Your task to perform on an android device: Open the calendar and show me this week's events? Image 0: 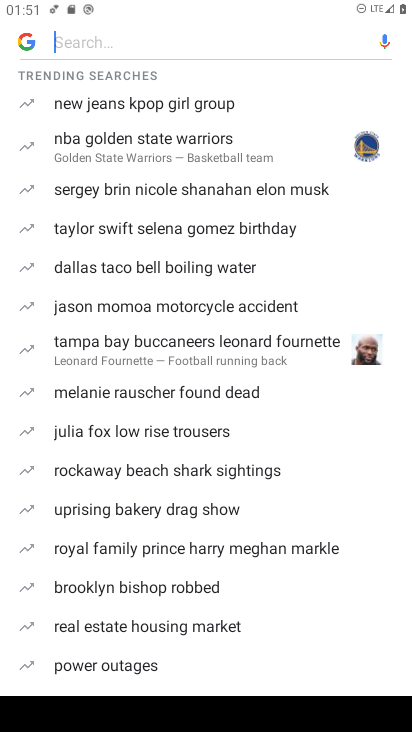
Step 0: press home button
Your task to perform on an android device: Open the calendar and show me this week's events? Image 1: 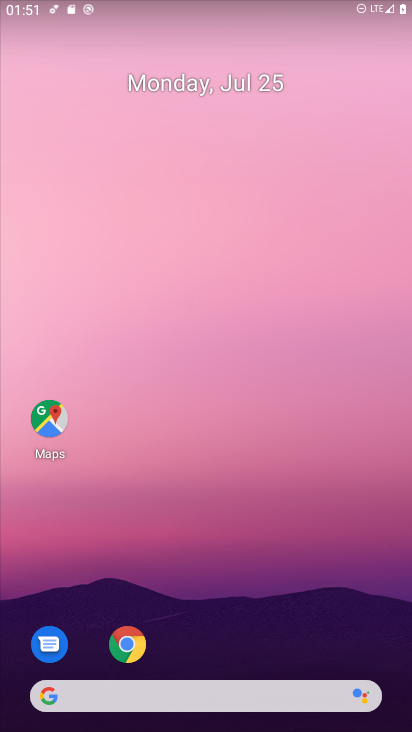
Step 1: drag from (193, 633) to (187, 269)
Your task to perform on an android device: Open the calendar and show me this week's events? Image 2: 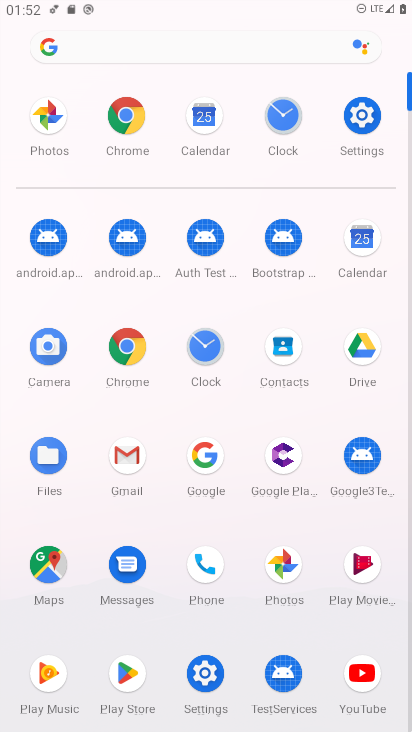
Step 2: click (365, 237)
Your task to perform on an android device: Open the calendar and show me this week's events? Image 3: 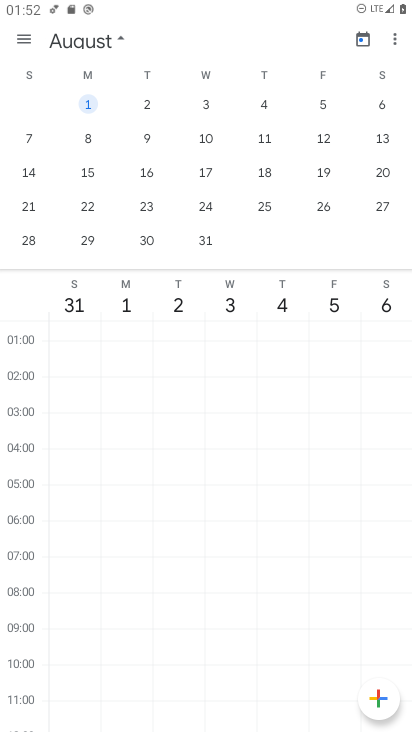
Step 3: drag from (44, 163) to (375, 197)
Your task to perform on an android device: Open the calendar and show me this week's events? Image 4: 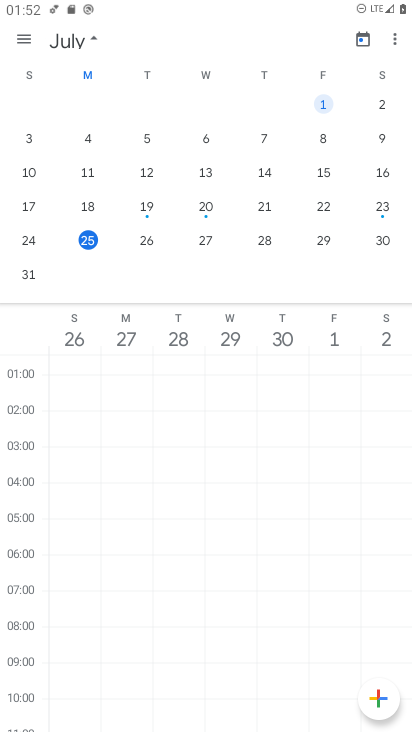
Step 4: click (89, 139)
Your task to perform on an android device: Open the calendar and show me this week's events? Image 5: 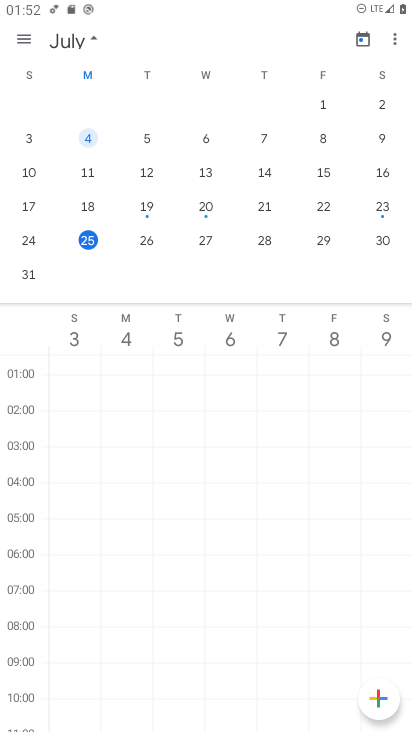
Step 5: click (150, 237)
Your task to perform on an android device: Open the calendar and show me this week's events? Image 6: 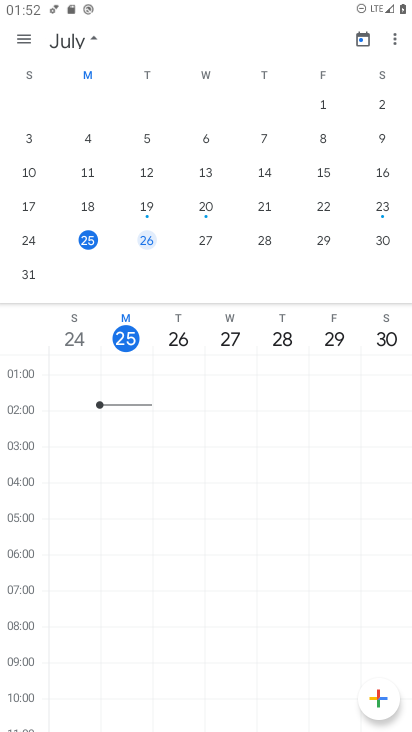
Step 6: click (24, 38)
Your task to perform on an android device: Open the calendar and show me this week's events? Image 7: 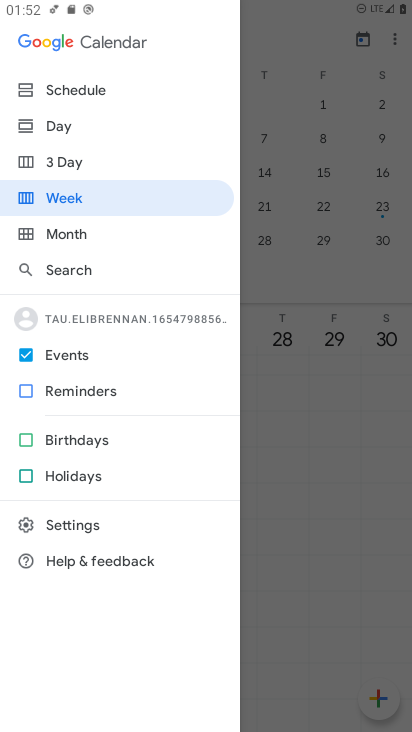
Step 7: click (291, 65)
Your task to perform on an android device: Open the calendar and show me this week's events? Image 8: 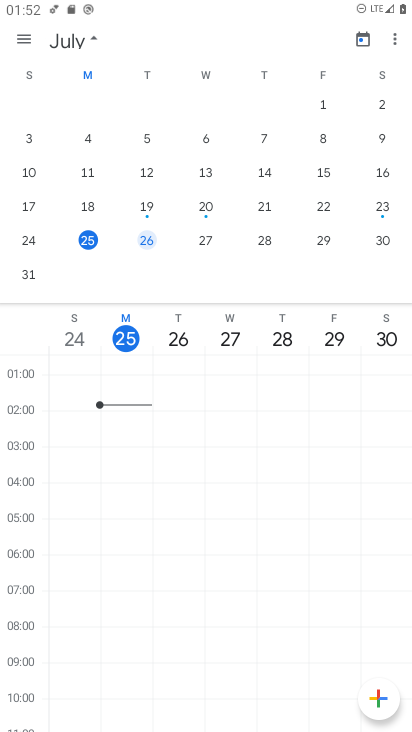
Step 8: task complete